Your task to perform on an android device: open app "The Home Depot" (install if not already installed) and go to login screen Image 0: 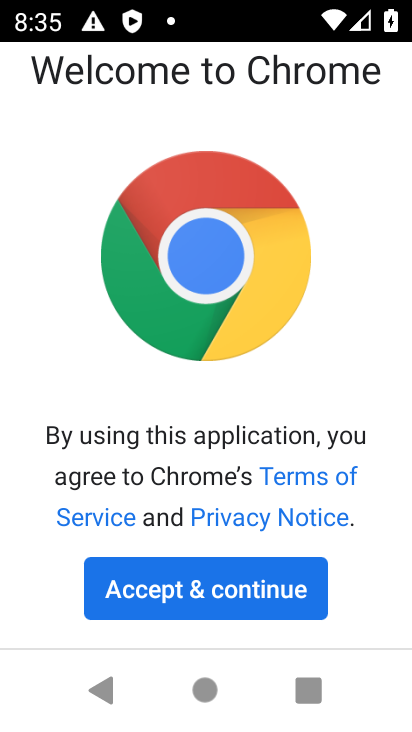
Step 0: press home button
Your task to perform on an android device: open app "The Home Depot" (install if not already installed) and go to login screen Image 1: 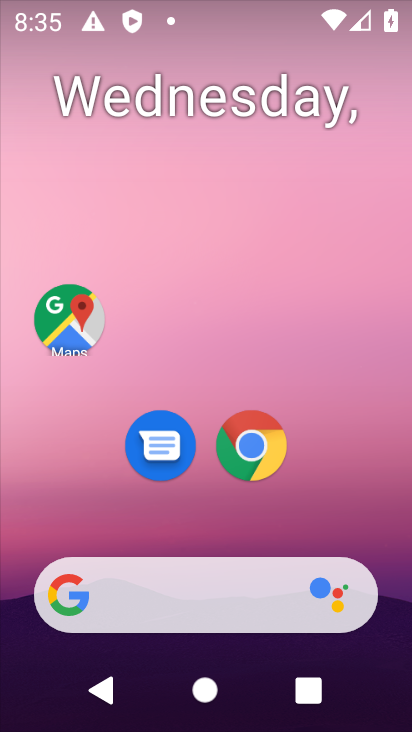
Step 1: drag from (125, 613) to (148, 172)
Your task to perform on an android device: open app "The Home Depot" (install if not already installed) and go to login screen Image 2: 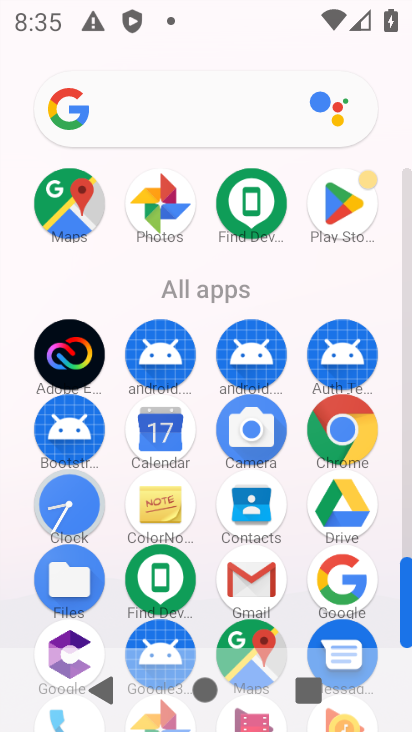
Step 2: click (341, 212)
Your task to perform on an android device: open app "The Home Depot" (install if not already installed) and go to login screen Image 3: 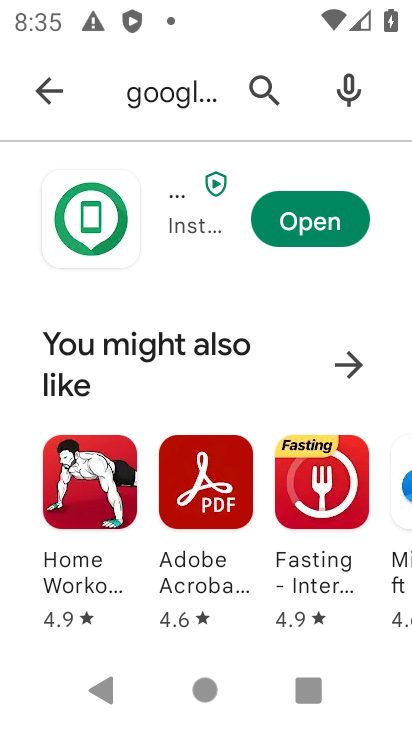
Step 3: click (261, 94)
Your task to perform on an android device: open app "The Home Depot" (install if not already installed) and go to login screen Image 4: 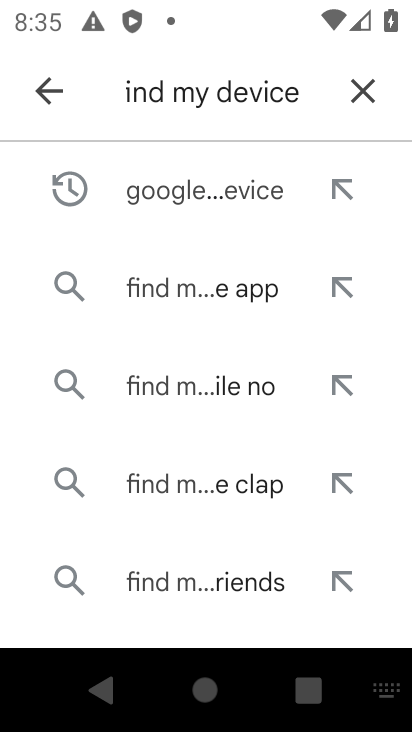
Step 4: click (363, 105)
Your task to perform on an android device: open app "The Home Depot" (install if not already installed) and go to login screen Image 5: 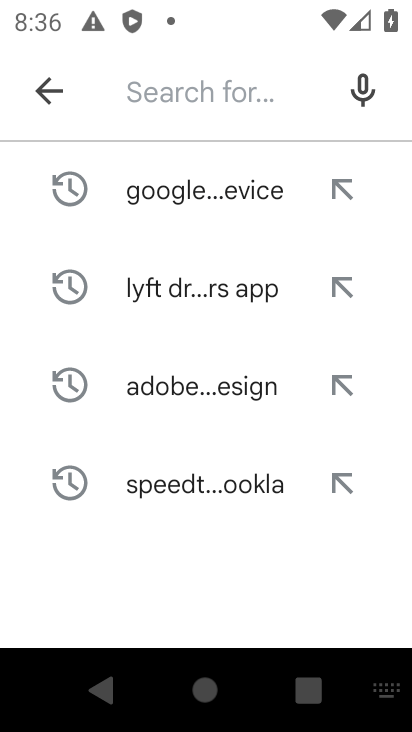
Step 5: type "The Home Depot"
Your task to perform on an android device: open app "The Home Depot" (install if not already installed) and go to login screen Image 6: 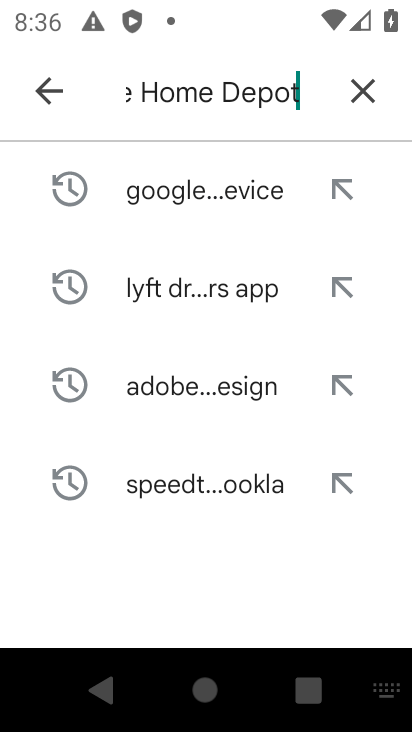
Step 6: type ""
Your task to perform on an android device: open app "The Home Depot" (install if not already installed) and go to login screen Image 7: 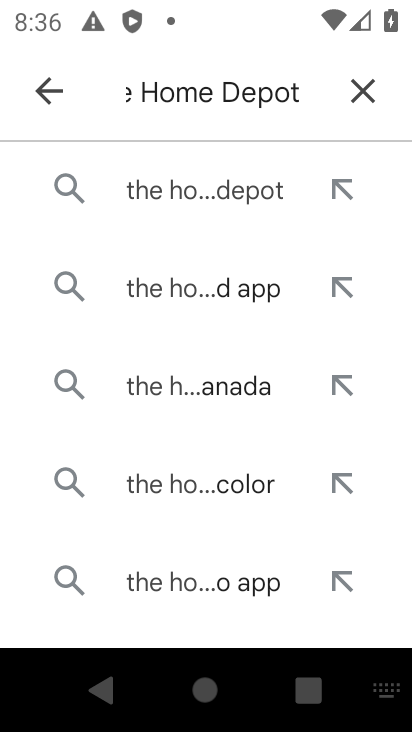
Step 7: click (215, 197)
Your task to perform on an android device: open app "The Home Depot" (install if not already installed) and go to login screen Image 8: 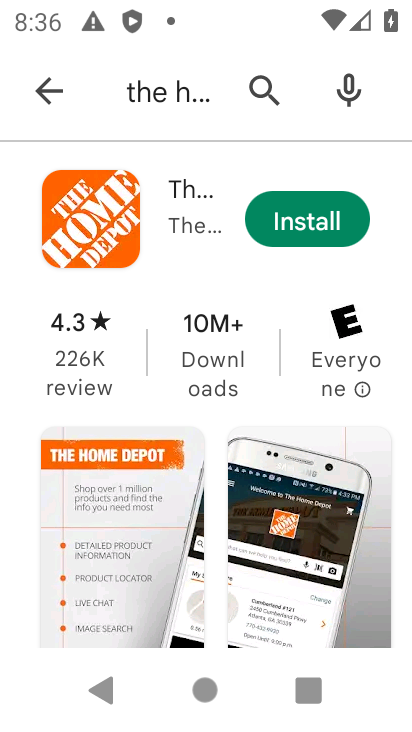
Step 8: click (304, 223)
Your task to perform on an android device: open app "The Home Depot" (install if not already installed) and go to login screen Image 9: 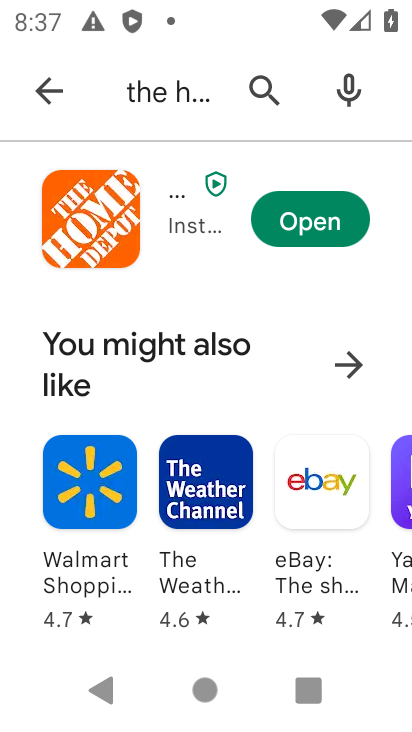
Step 9: click (318, 229)
Your task to perform on an android device: open app "The Home Depot" (install if not already installed) and go to login screen Image 10: 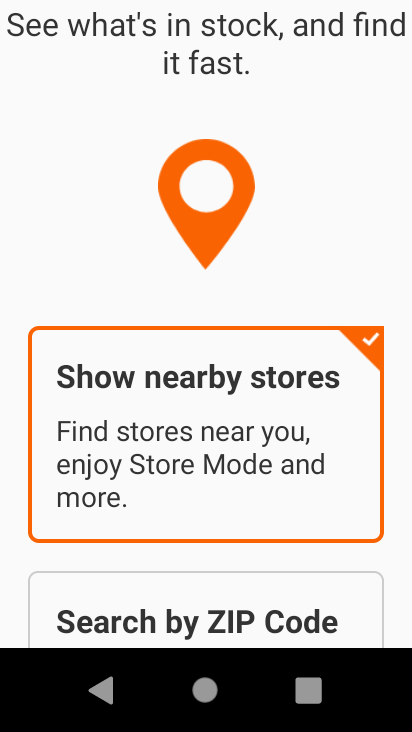
Step 10: click (251, 480)
Your task to perform on an android device: open app "The Home Depot" (install if not already installed) and go to login screen Image 11: 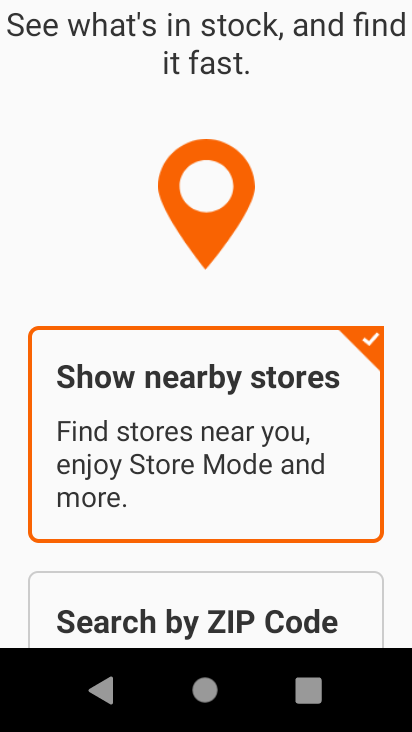
Step 11: drag from (226, 571) to (291, 184)
Your task to perform on an android device: open app "The Home Depot" (install if not already installed) and go to login screen Image 12: 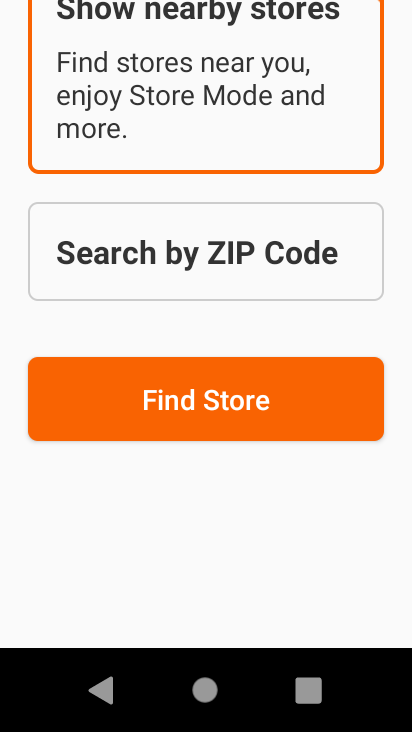
Step 12: click (240, 411)
Your task to perform on an android device: open app "The Home Depot" (install if not already installed) and go to login screen Image 13: 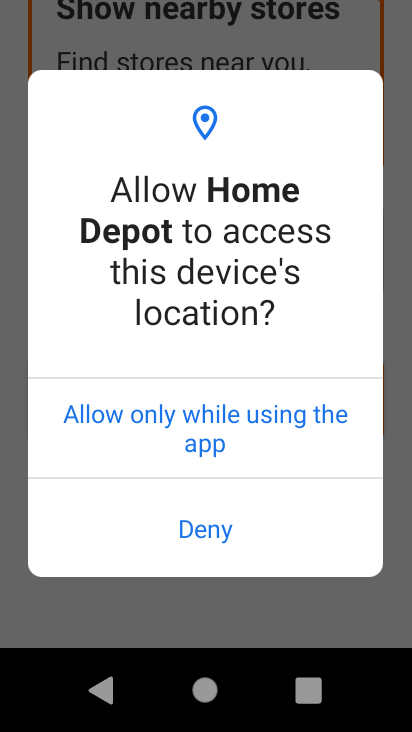
Step 13: click (241, 415)
Your task to perform on an android device: open app "The Home Depot" (install if not already installed) and go to login screen Image 14: 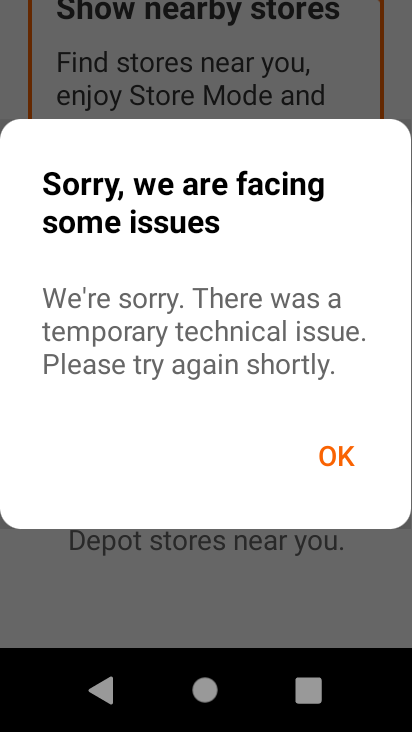
Step 14: click (334, 439)
Your task to perform on an android device: open app "The Home Depot" (install if not already installed) and go to login screen Image 15: 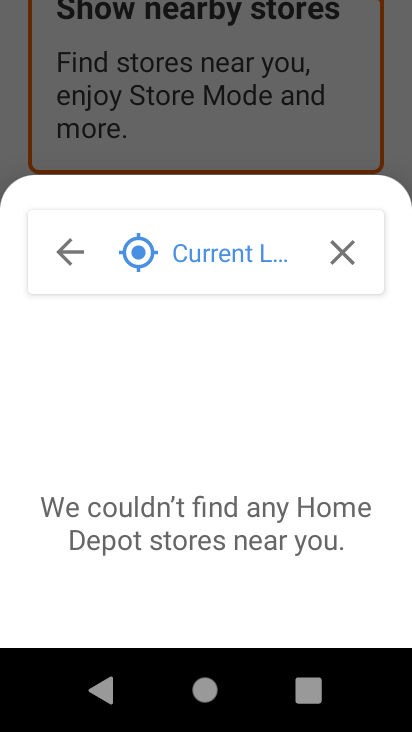
Step 15: task complete